Your task to perform on an android device: Go to sound settings Image 0: 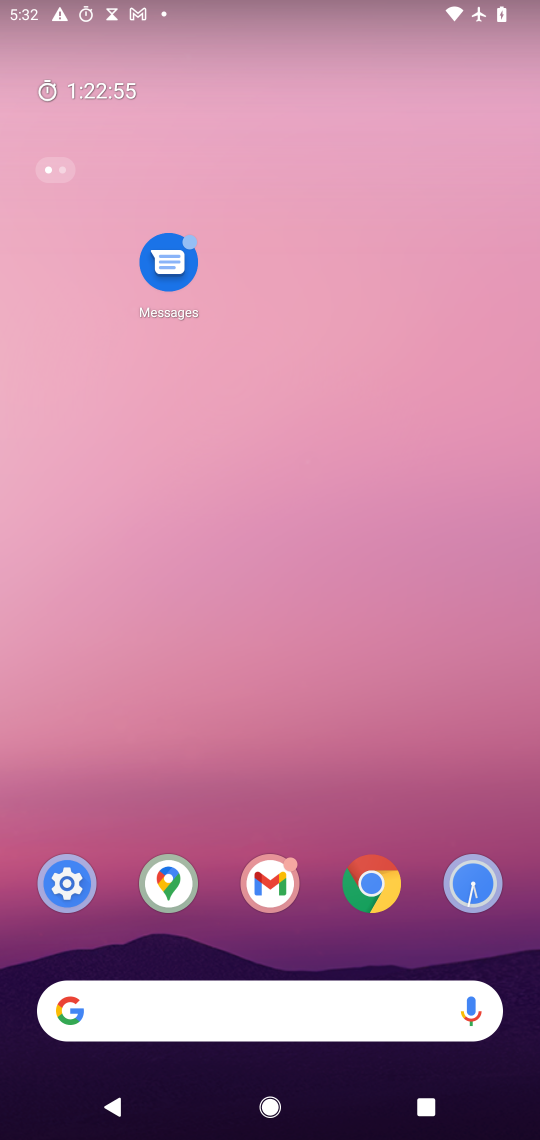
Step 0: drag from (310, 889) to (275, 121)
Your task to perform on an android device: Go to sound settings Image 1: 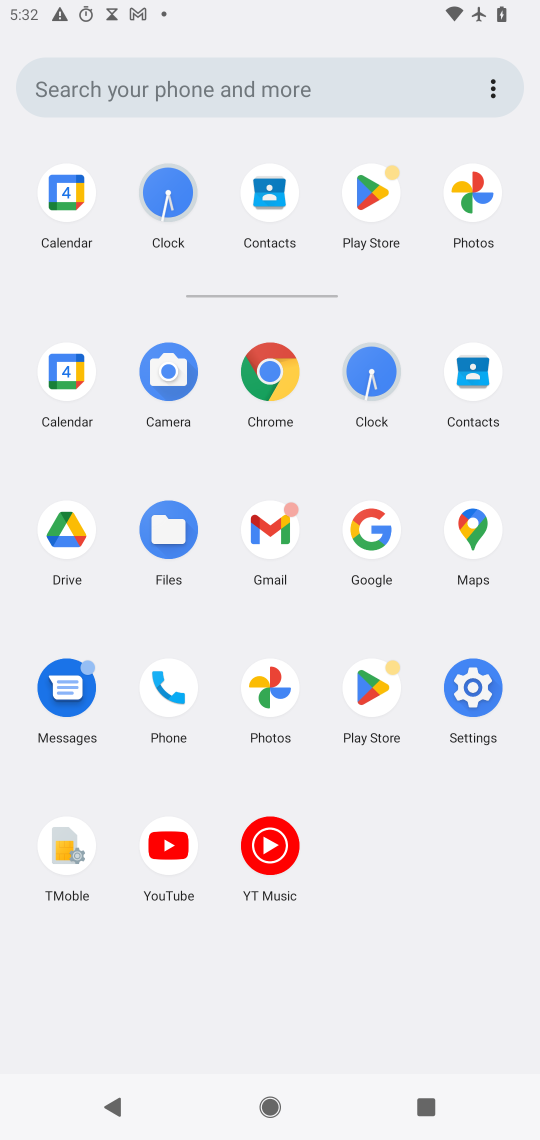
Step 1: click (472, 700)
Your task to perform on an android device: Go to sound settings Image 2: 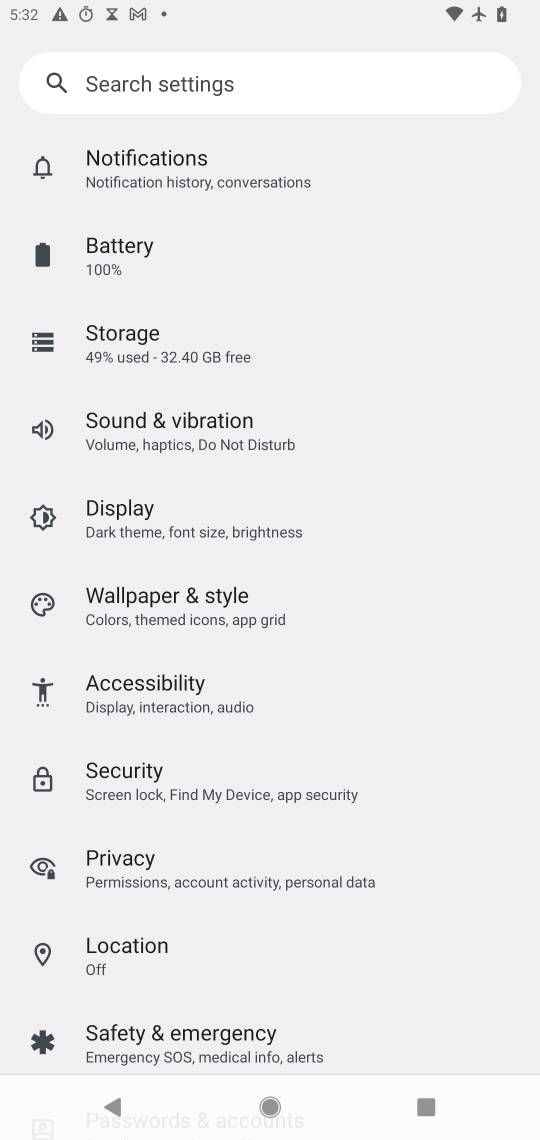
Step 2: drag from (192, 311) to (228, 870)
Your task to perform on an android device: Go to sound settings Image 3: 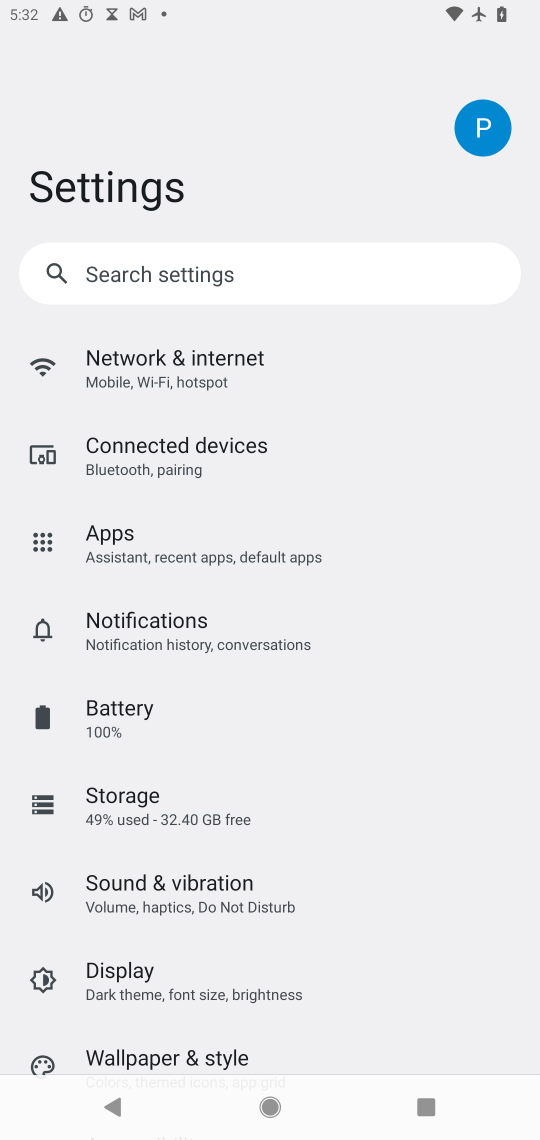
Step 3: drag from (197, 959) to (186, 587)
Your task to perform on an android device: Go to sound settings Image 4: 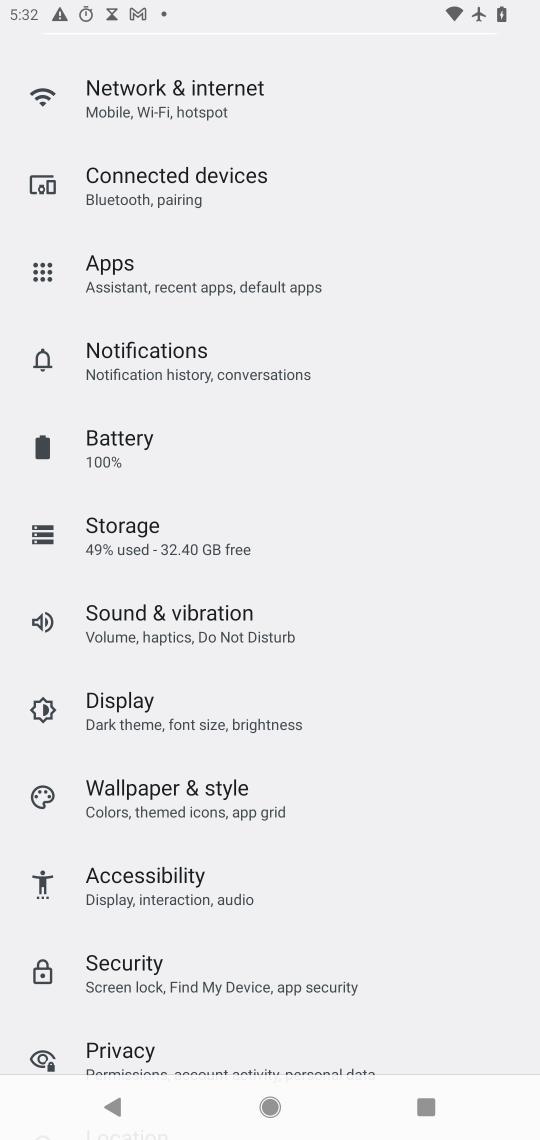
Step 4: click (163, 623)
Your task to perform on an android device: Go to sound settings Image 5: 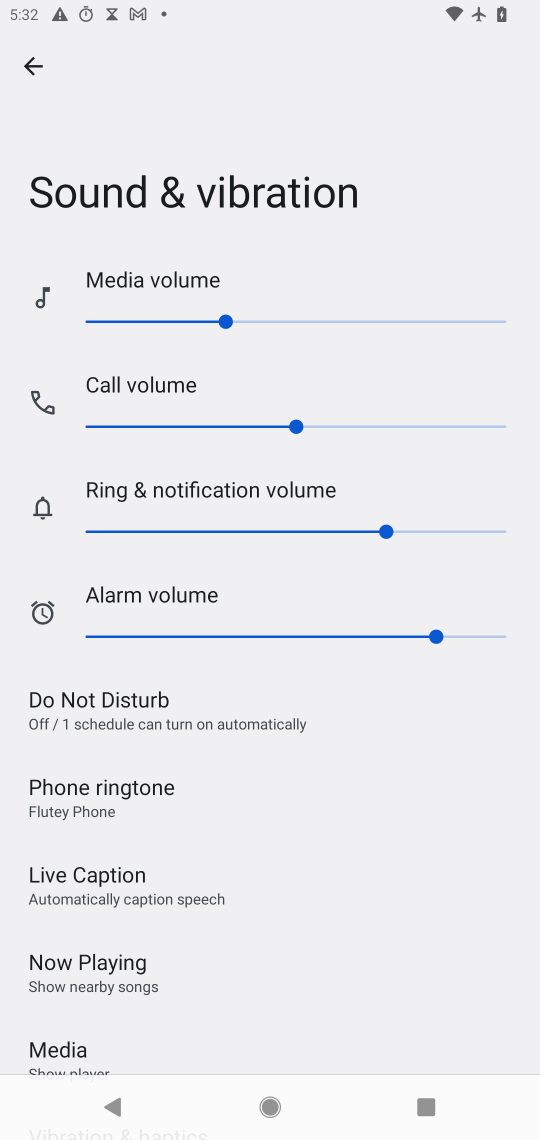
Step 5: task complete